Your task to perform on an android device: Open Chrome and go to settings Image 0: 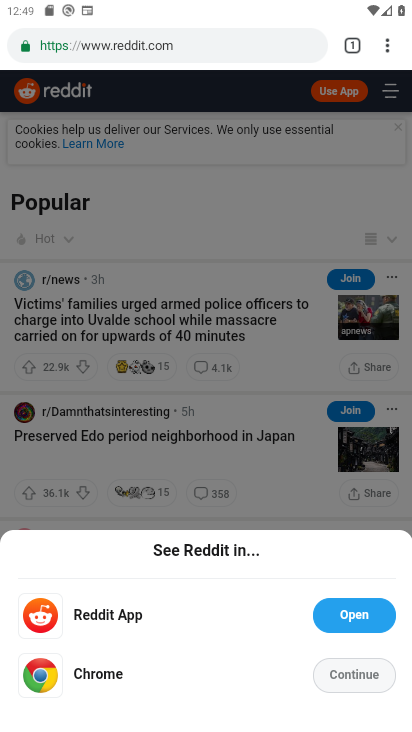
Step 0: press home button
Your task to perform on an android device: Open Chrome and go to settings Image 1: 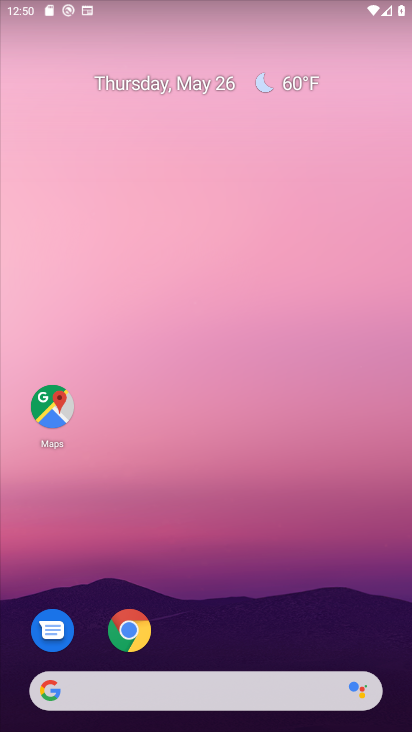
Step 1: drag from (296, 605) to (279, 160)
Your task to perform on an android device: Open Chrome and go to settings Image 2: 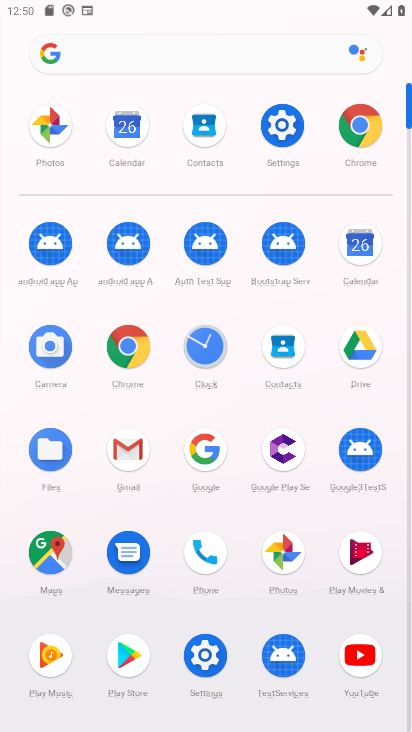
Step 2: click (369, 121)
Your task to perform on an android device: Open Chrome and go to settings Image 3: 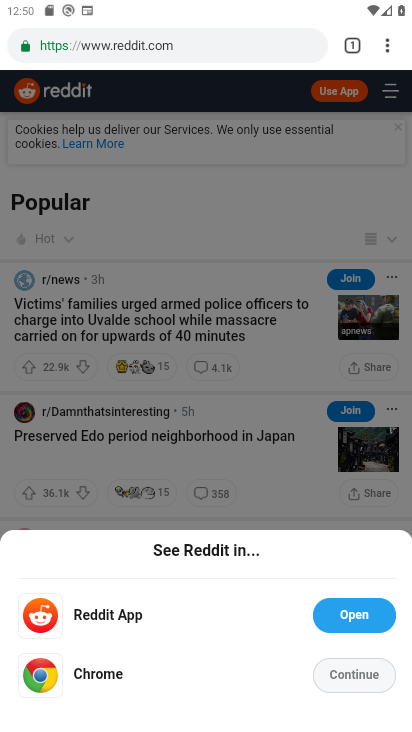
Step 3: task complete